Your task to perform on an android device: Open Google Maps and go to "Timeline" Image 0: 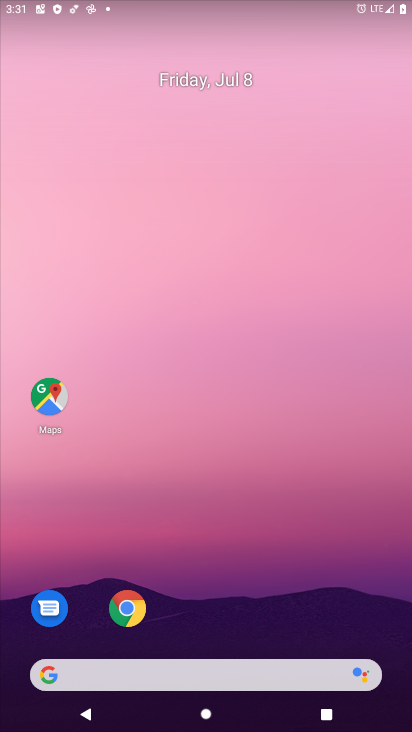
Step 0: press home button
Your task to perform on an android device: Open Google Maps and go to "Timeline" Image 1: 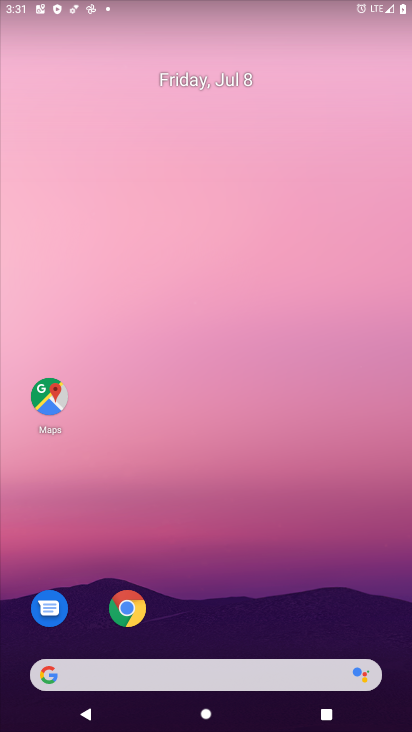
Step 1: drag from (223, 640) to (196, 19)
Your task to perform on an android device: Open Google Maps and go to "Timeline" Image 2: 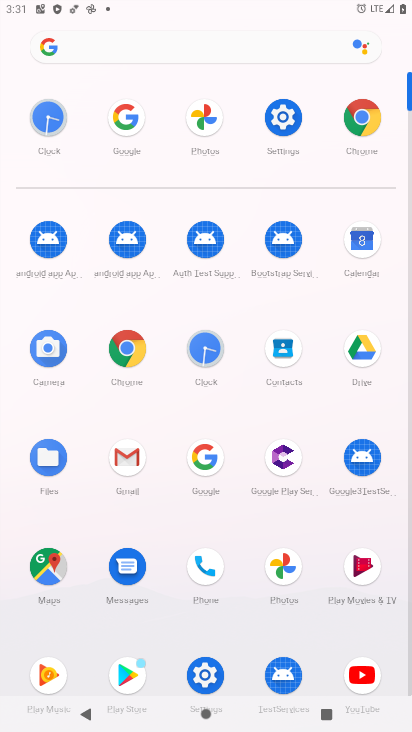
Step 2: click (38, 563)
Your task to perform on an android device: Open Google Maps and go to "Timeline" Image 3: 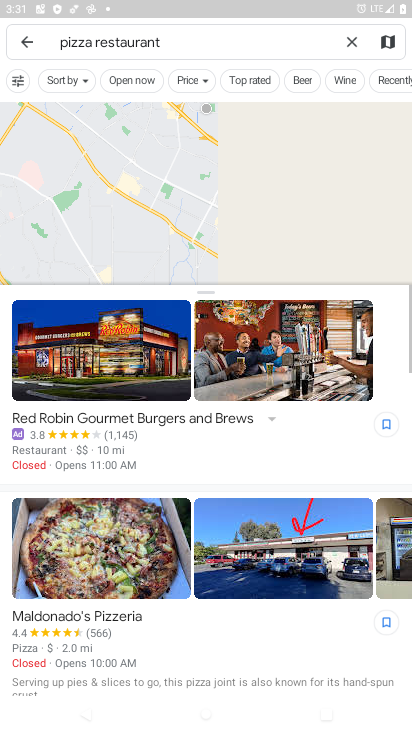
Step 3: press back button
Your task to perform on an android device: Open Google Maps and go to "Timeline" Image 4: 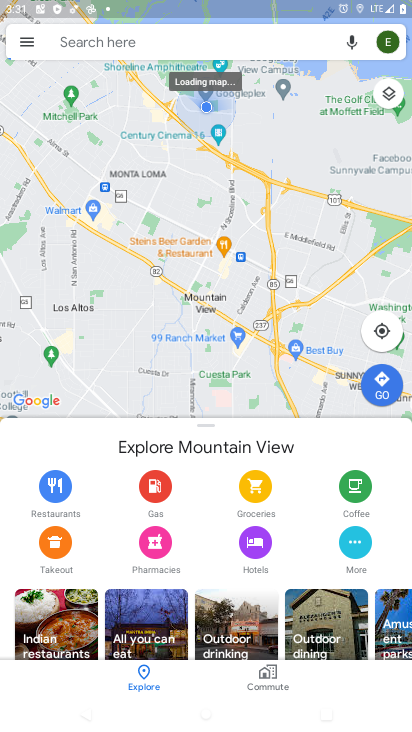
Step 4: click (21, 43)
Your task to perform on an android device: Open Google Maps and go to "Timeline" Image 5: 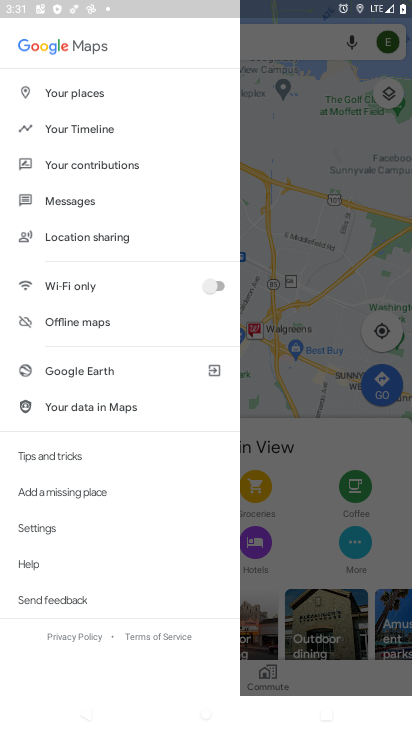
Step 5: click (94, 125)
Your task to perform on an android device: Open Google Maps and go to "Timeline" Image 6: 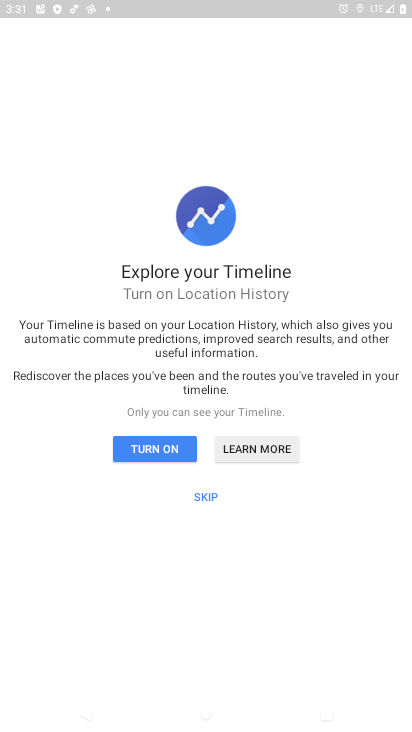
Step 6: click (207, 490)
Your task to perform on an android device: Open Google Maps and go to "Timeline" Image 7: 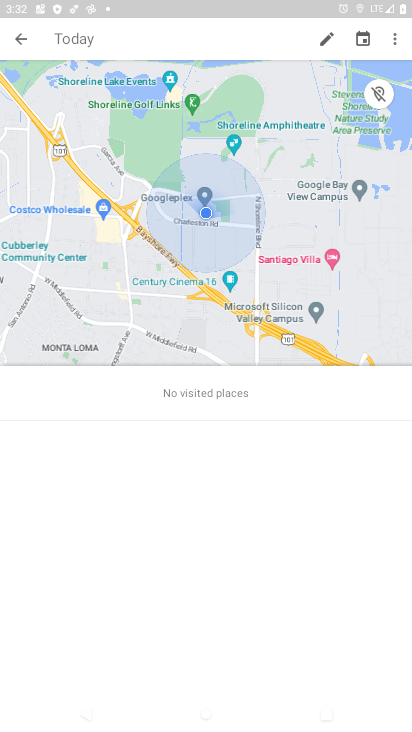
Step 7: task complete